Your task to perform on an android device: check google app version Image 0: 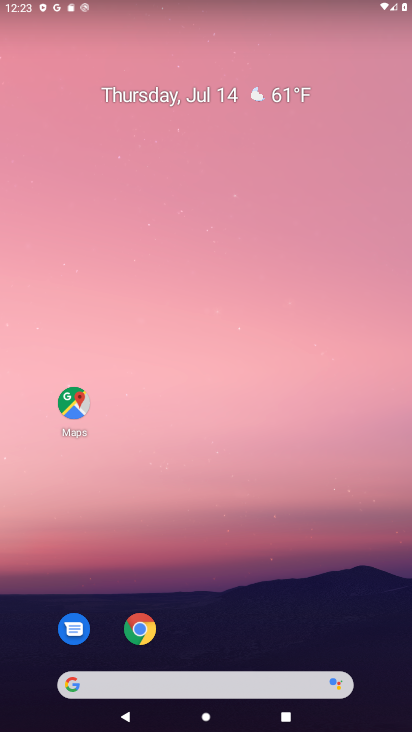
Step 0: click (125, 684)
Your task to perform on an android device: check google app version Image 1: 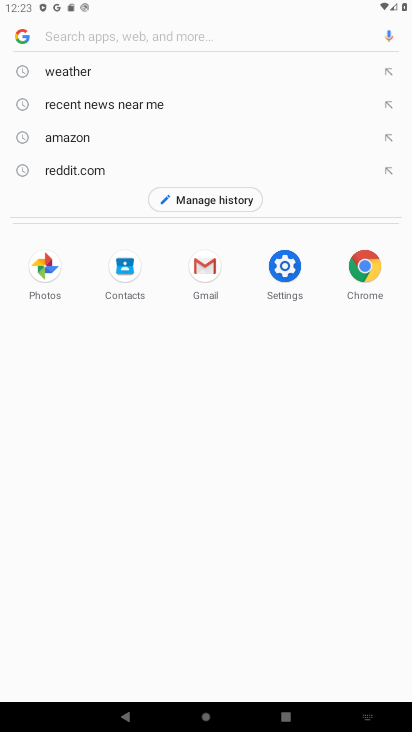
Step 1: click (20, 46)
Your task to perform on an android device: check google app version Image 2: 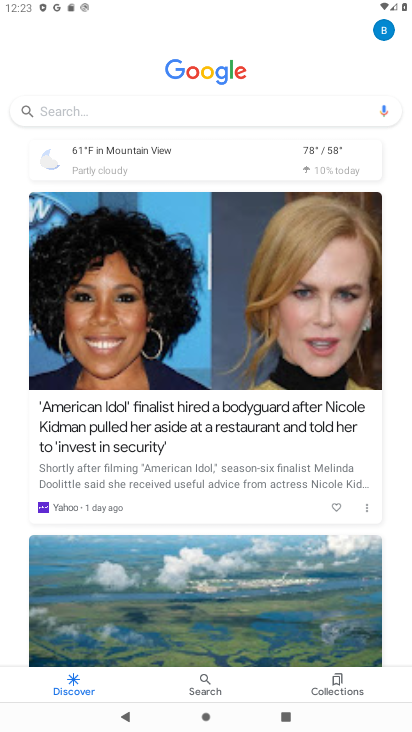
Step 2: click (388, 34)
Your task to perform on an android device: check google app version Image 3: 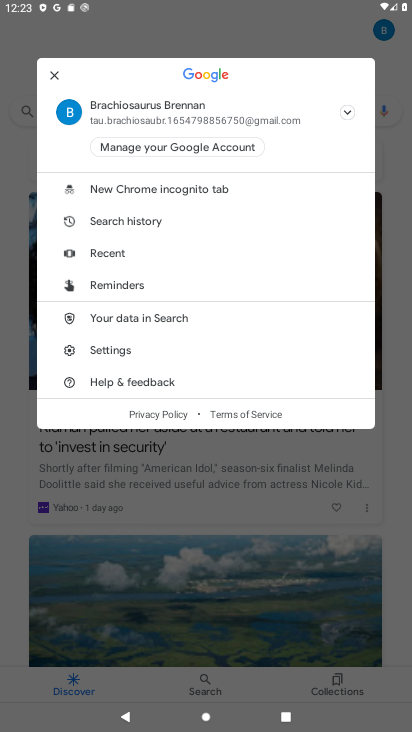
Step 3: click (106, 344)
Your task to perform on an android device: check google app version Image 4: 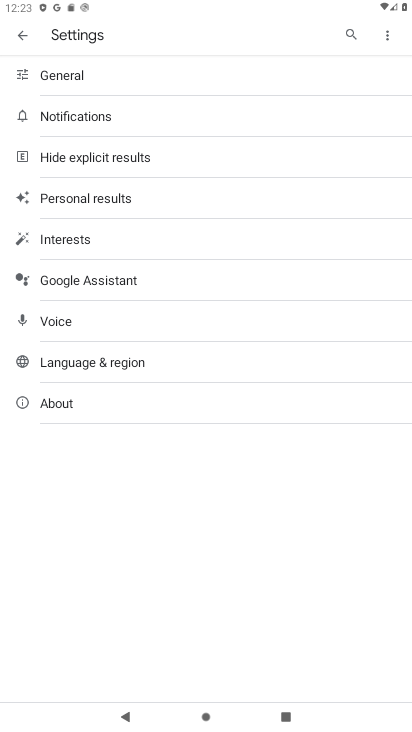
Step 4: click (87, 391)
Your task to perform on an android device: check google app version Image 5: 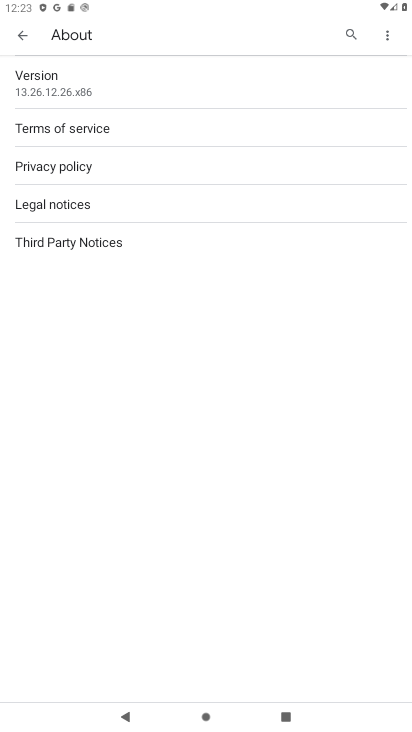
Step 5: task complete